Your task to perform on an android device: turn notification dots on Image 0: 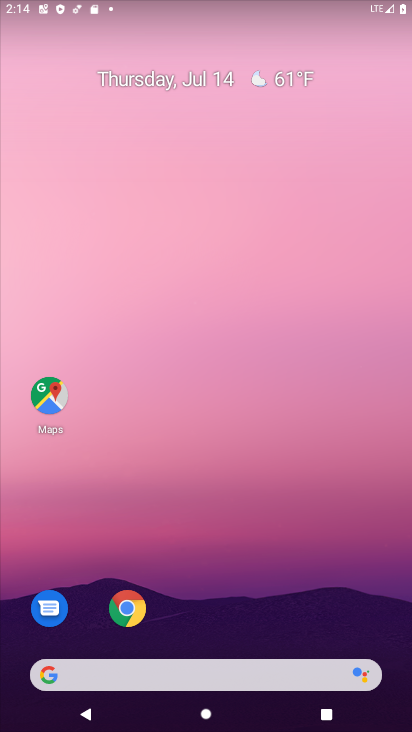
Step 0: drag from (239, 645) to (302, 361)
Your task to perform on an android device: turn notification dots on Image 1: 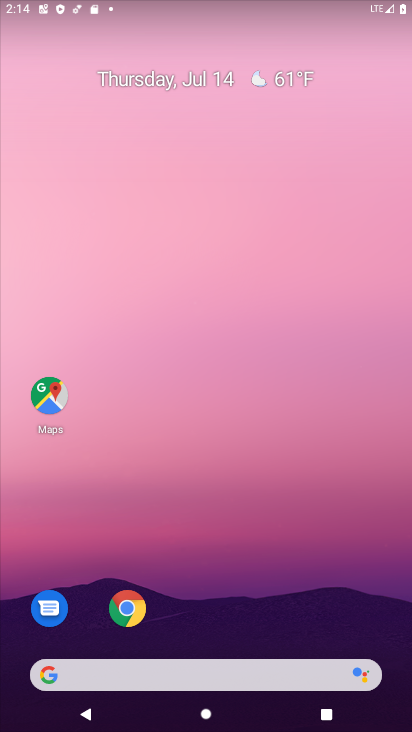
Step 1: drag from (228, 613) to (260, 168)
Your task to perform on an android device: turn notification dots on Image 2: 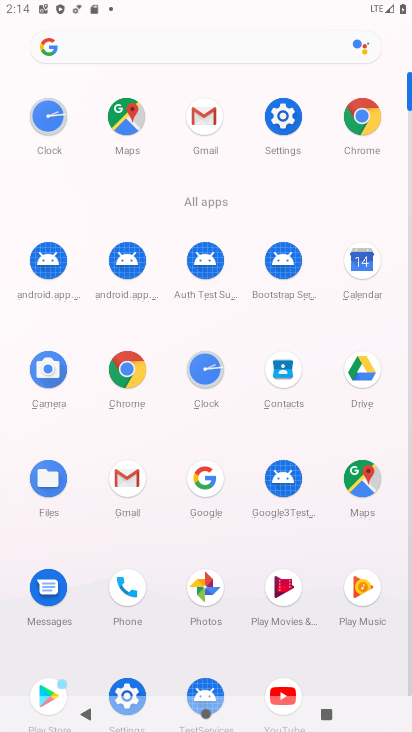
Step 2: click (288, 111)
Your task to perform on an android device: turn notification dots on Image 3: 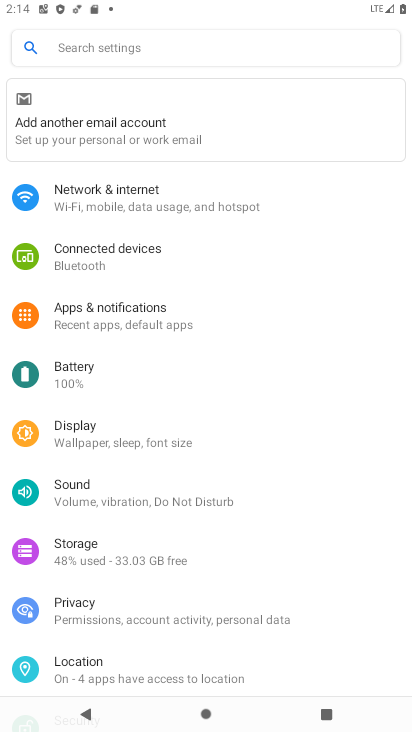
Step 3: click (112, 318)
Your task to perform on an android device: turn notification dots on Image 4: 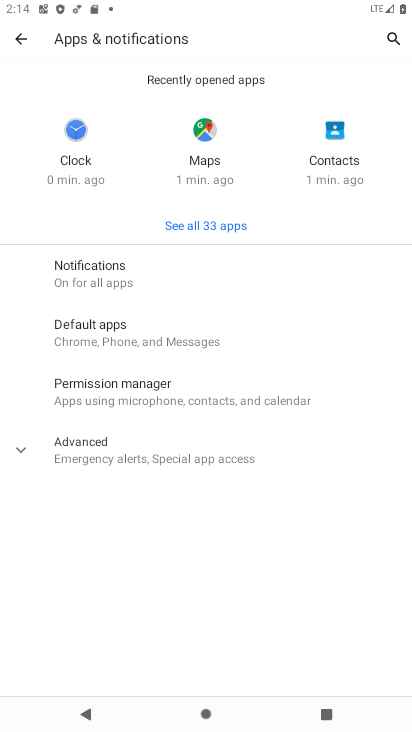
Step 4: click (85, 440)
Your task to perform on an android device: turn notification dots on Image 5: 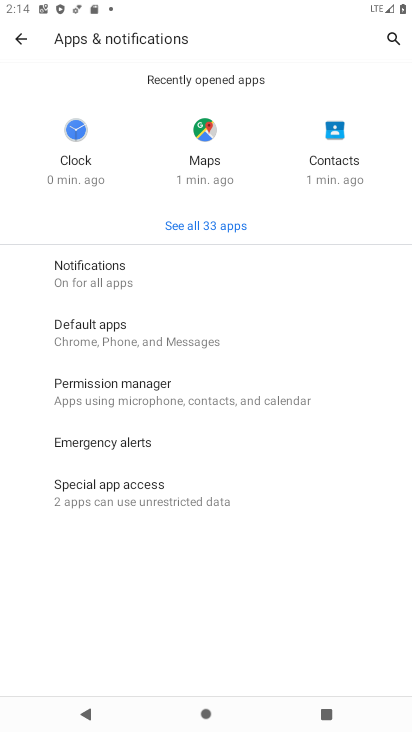
Step 5: click (77, 274)
Your task to perform on an android device: turn notification dots on Image 6: 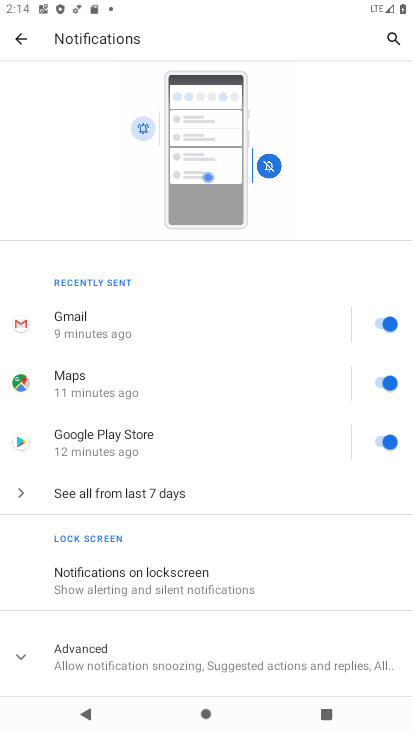
Step 6: drag from (185, 661) to (185, 378)
Your task to perform on an android device: turn notification dots on Image 7: 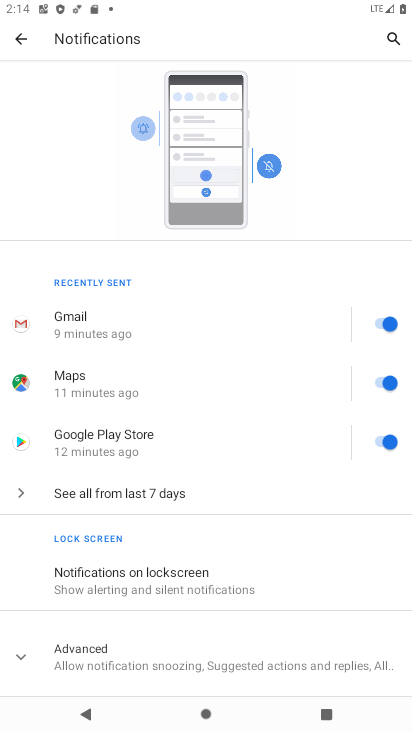
Step 7: click (86, 644)
Your task to perform on an android device: turn notification dots on Image 8: 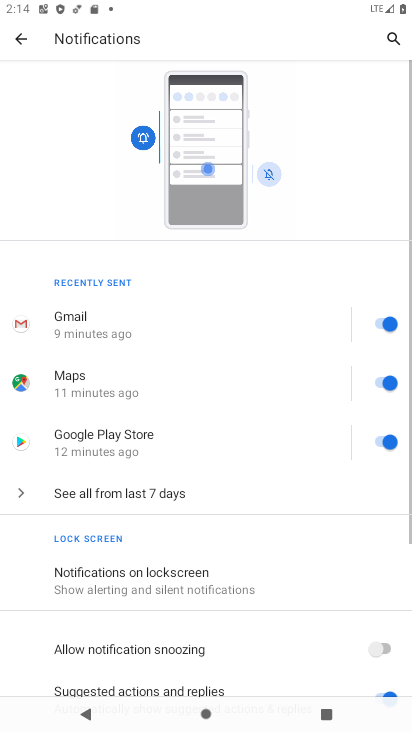
Step 8: task complete